Your task to perform on an android device: allow cookies in the chrome app Image 0: 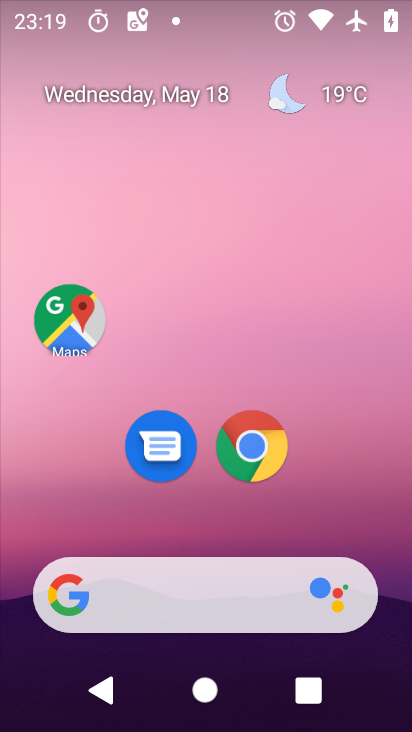
Step 0: press home button
Your task to perform on an android device: allow cookies in the chrome app Image 1: 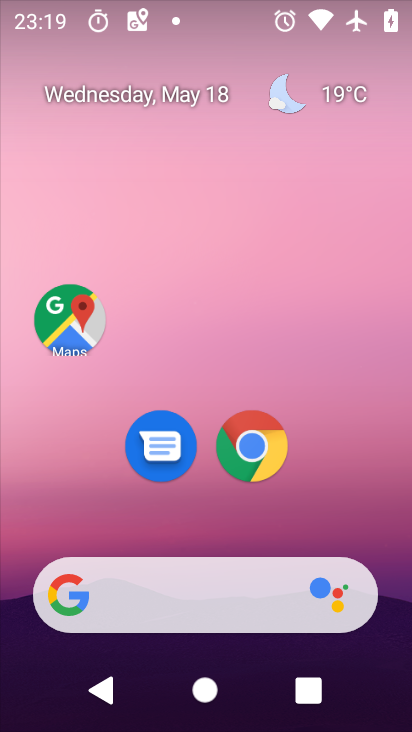
Step 1: click (263, 453)
Your task to perform on an android device: allow cookies in the chrome app Image 2: 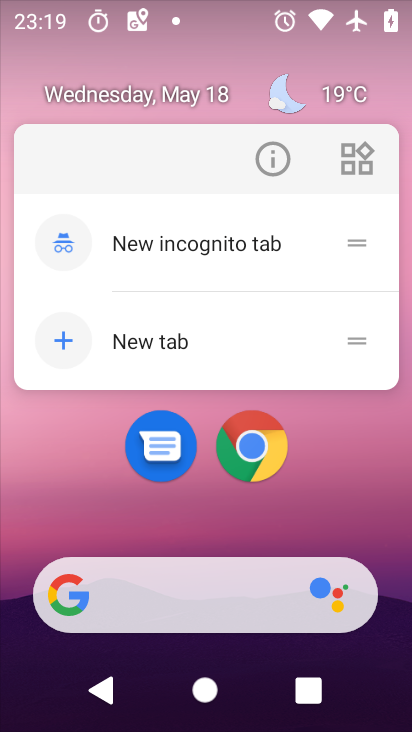
Step 2: click (252, 457)
Your task to perform on an android device: allow cookies in the chrome app Image 3: 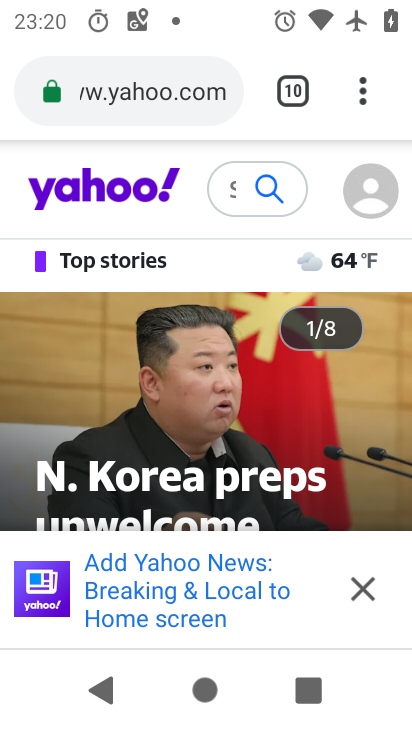
Step 3: drag from (365, 98) to (321, 461)
Your task to perform on an android device: allow cookies in the chrome app Image 4: 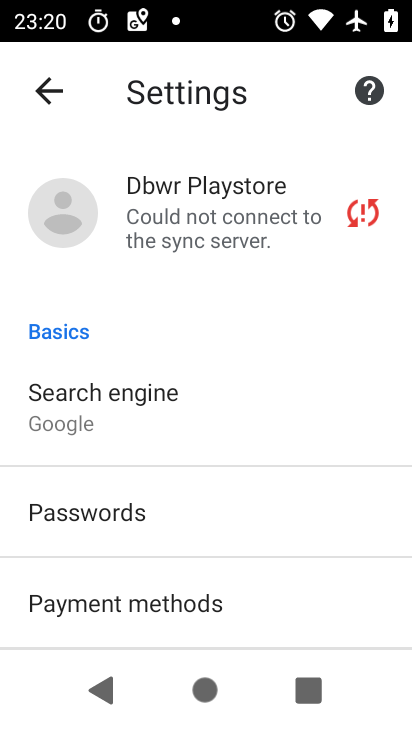
Step 4: drag from (279, 595) to (357, 267)
Your task to perform on an android device: allow cookies in the chrome app Image 5: 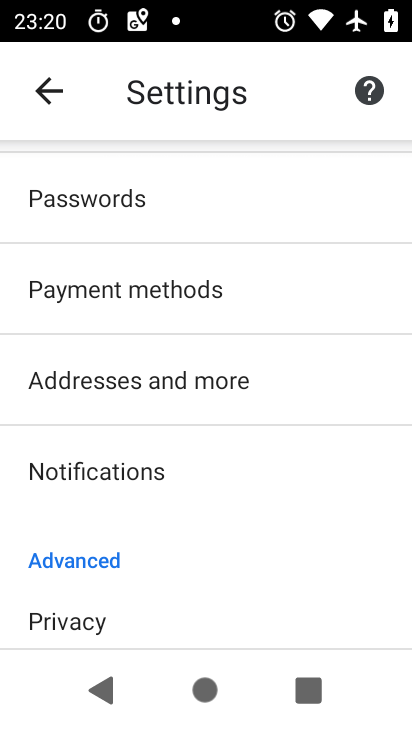
Step 5: drag from (185, 590) to (289, 268)
Your task to perform on an android device: allow cookies in the chrome app Image 6: 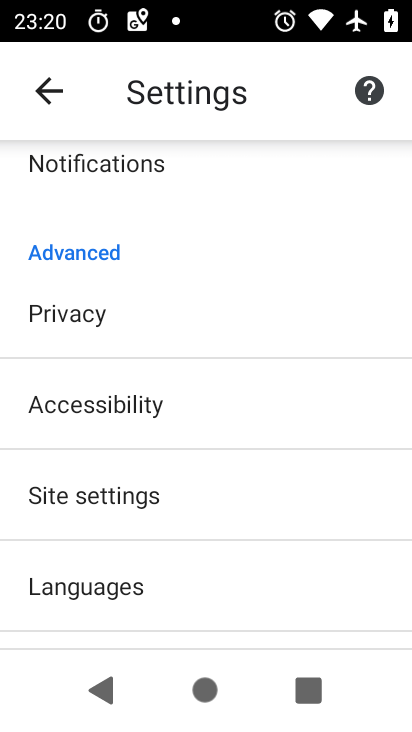
Step 6: click (90, 495)
Your task to perform on an android device: allow cookies in the chrome app Image 7: 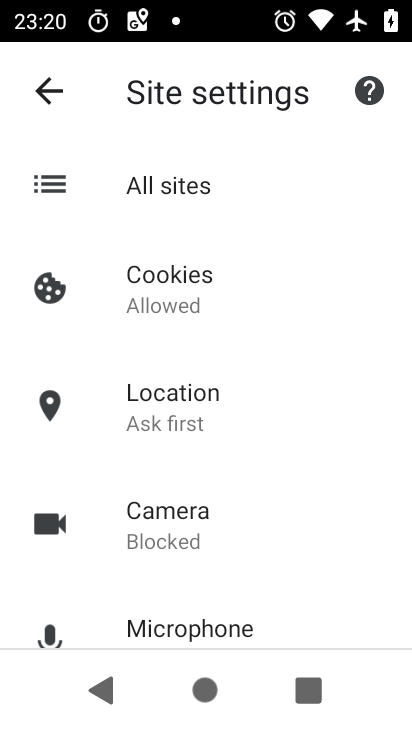
Step 7: click (172, 287)
Your task to perform on an android device: allow cookies in the chrome app Image 8: 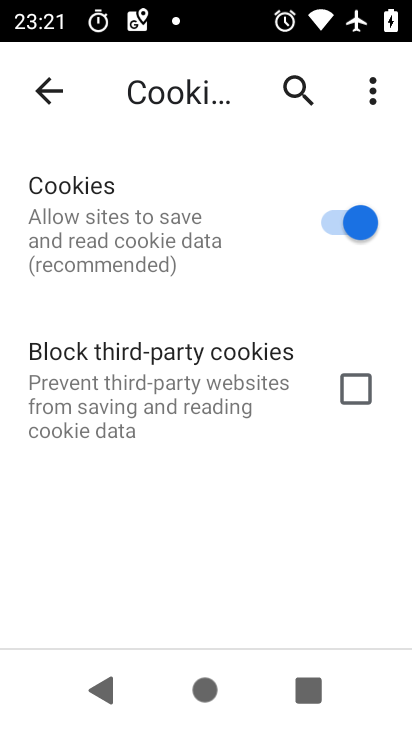
Step 8: task complete